Your task to perform on an android device: Show the shopping cart on target. Search for logitech g903 on target, select the first entry, and add it to the cart. Image 0: 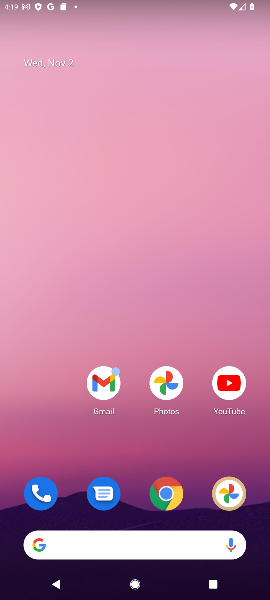
Step 0: drag from (124, 509) to (160, 196)
Your task to perform on an android device: Show the shopping cart on target. Search for logitech g903 on target, select the first entry, and add it to the cart. Image 1: 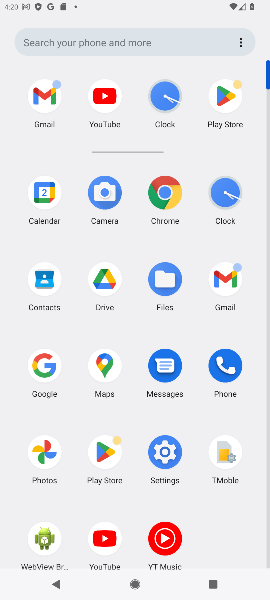
Step 1: click (43, 364)
Your task to perform on an android device: Show the shopping cart on target. Search for logitech g903 on target, select the first entry, and add it to the cart. Image 2: 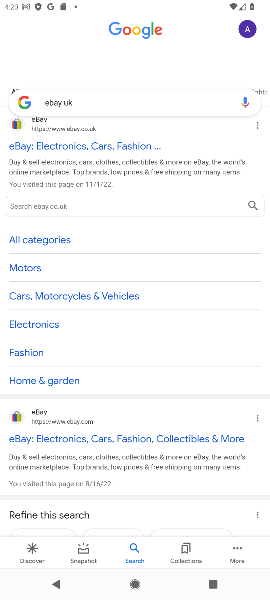
Step 2: click (86, 101)
Your task to perform on an android device: Show the shopping cart on target. Search for logitech g903 on target, select the first entry, and add it to the cart. Image 3: 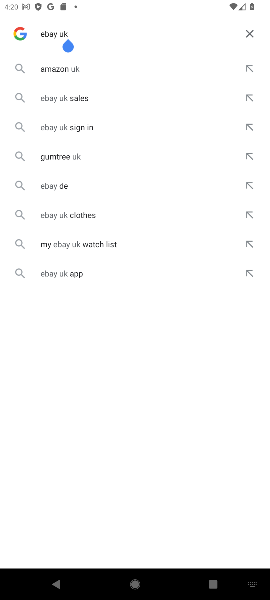
Step 3: click (253, 31)
Your task to perform on an android device: Show the shopping cart on target. Search for logitech g903 on target, select the first entry, and add it to the cart. Image 4: 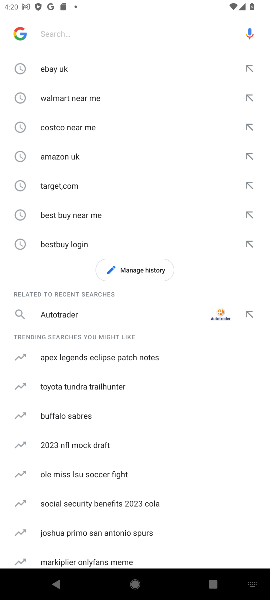
Step 4: click (53, 181)
Your task to perform on an android device: Show the shopping cart on target. Search for logitech g903 on target, select the first entry, and add it to the cart. Image 5: 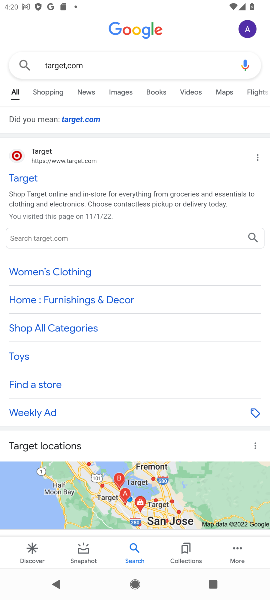
Step 5: click (9, 154)
Your task to perform on an android device: Show the shopping cart on target. Search for logitech g903 on target, select the first entry, and add it to the cart. Image 6: 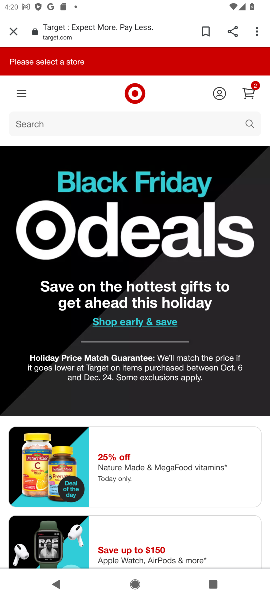
Step 6: click (90, 117)
Your task to perform on an android device: Show the shopping cart on target. Search for logitech g903 on target, select the first entry, and add it to the cart. Image 7: 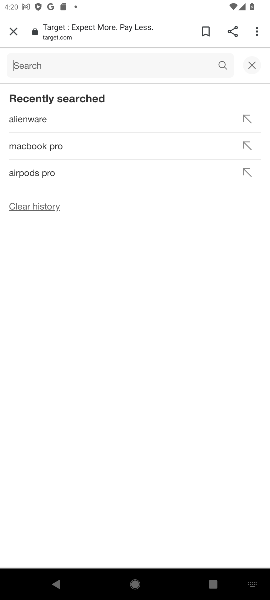
Step 7: click (105, 61)
Your task to perform on an android device: Show the shopping cart on target. Search for logitech g903 on target, select the first entry, and add it to the cart. Image 8: 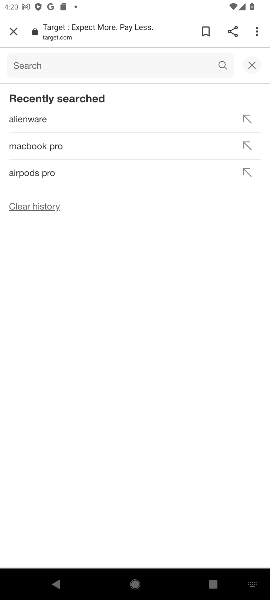
Step 8: type " logitech g903 "
Your task to perform on an android device: Show the shopping cart on target. Search for logitech g903 on target, select the first entry, and add it to the cart. Image 9: 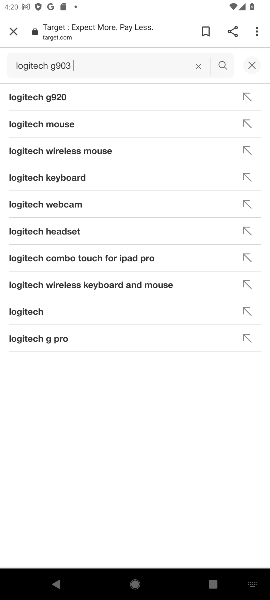
Step 9: click (43, 89)
Your task to perform on an android device: Show the shopping cart on target. Search for logitech g903 on target, select the first entry, and add it to the cart. Image 10: 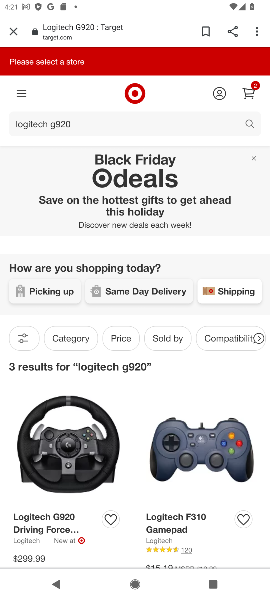
Step 10: click (65, 474)
Your task to perform on an android device: Show the shopping cart on target. Search for logitech g903 on target, select the first entry, and add it to the cart. Image 11: 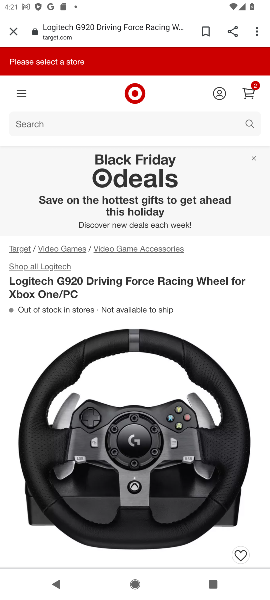
Step 11: drag from (146, 499) to (176, 236)
Your task to perform on an android device: Show the shopping cart on target. Search for logitech g903 on target, select the first entry, and add it to the cart. Image 12: 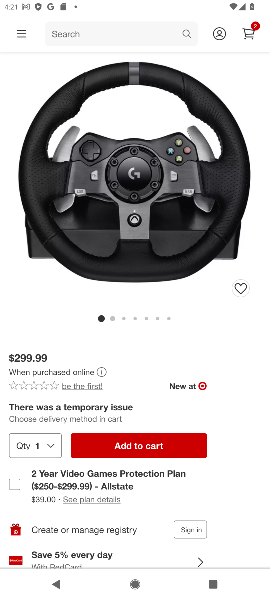
Step 12: drag from (82, 493) to (111, 389)
Your task to perform on an android device: Show the shopping cart on target. Search for logitech g903 on target, select the first entry, and add it to the cart. Image 13: 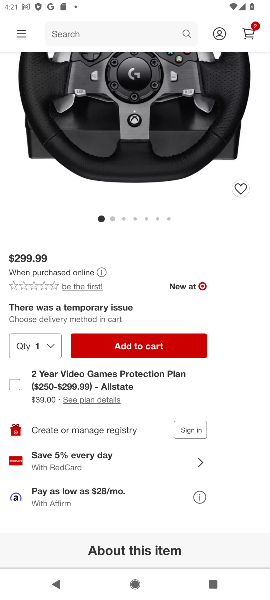
Step 13: drag from (113, 169) to (91, 511)
Your task to perform on an android device: Show the shopping cart on target. Search for logitech g903 on target, select the first entry, and add it to the cart. Image 14: 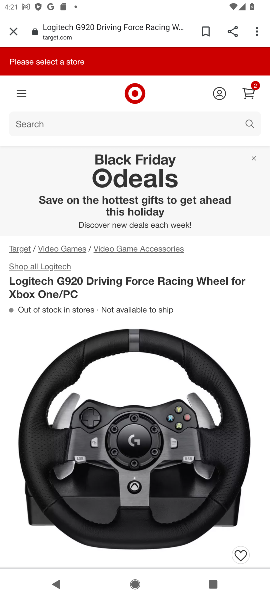
Step 14: click (122, 123)
Your task to perform on an android device: Show the shopping cart on target. Search for logitech g903 on target, select the first entry, and add it to the cart. Image 15: 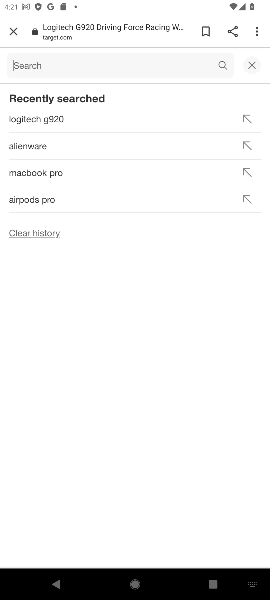
Step 15: click (40, 119)
Your task to perform on an android device: Show the shopping cart on target. Search for logitech g903 on target, select the first entry, and add it to the cart. Image 16: 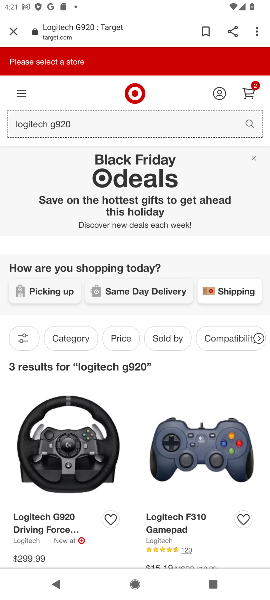
Step 16: drag from (176, 493) to (215, 230)
Your task to perform on an android device: Show the shopping cart on target. Search for logitech g903 on target, select the first entry, and add it to the cart. Image 17: 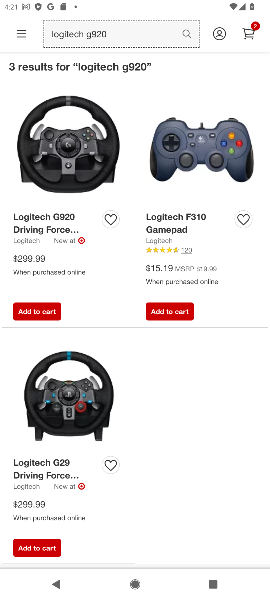
Step 17: drag from (174, 474) to (174, 294)
Your task to perform on an android device: Show the shopping cart on target. Search for logitech g903 on target, select the first entry, and add it to the cart. Image 18: 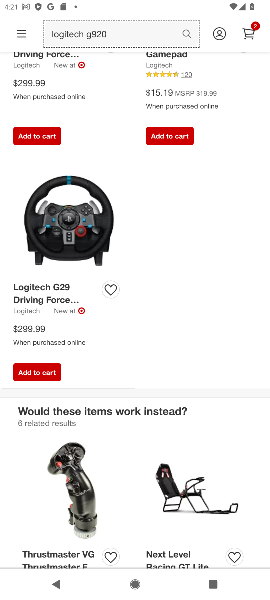
Step 18: click (32, 369)
Your task to perform on an android device: Show the shopping cart on target. Search for logitech g903 on target, select the first entry, and add it to the cart. Image 19: 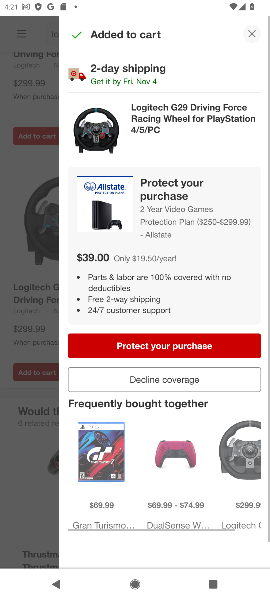
Step 19: task complete